Your task to perform on an android device: Is it going to rain today? Image 0: 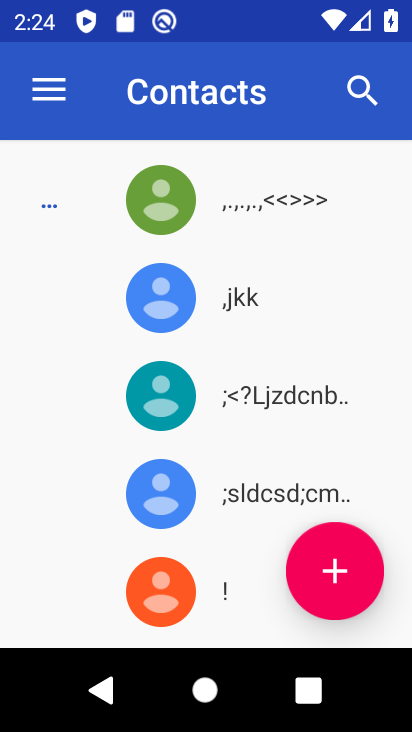
Step 0: click (202, 534)
Your task to perform on an android device: Is it going to rain today? Image 1: 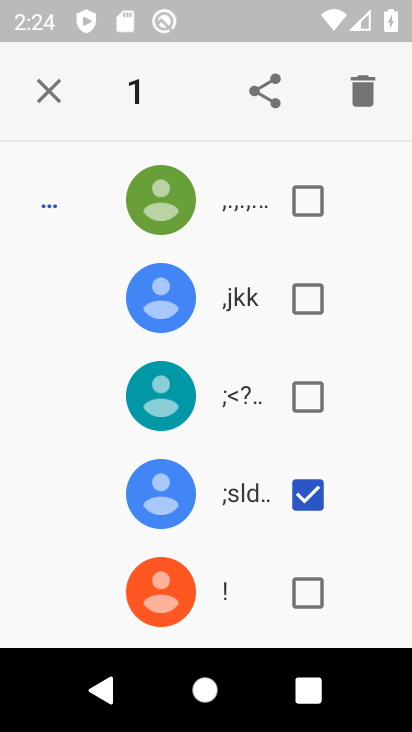
Step 1: press home button
Your task to perform on an android device: Is it going to rain today? Image 2: 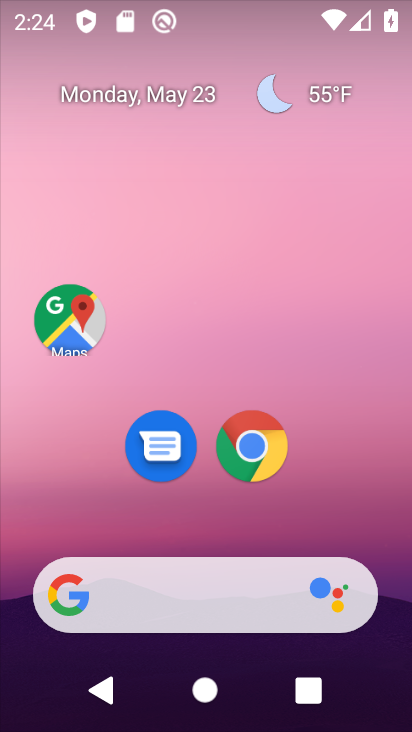
Step 2: drag from (214, 524) to (183, 151)
Your task to perform on an android device: Is it going to rain today? Image 3: 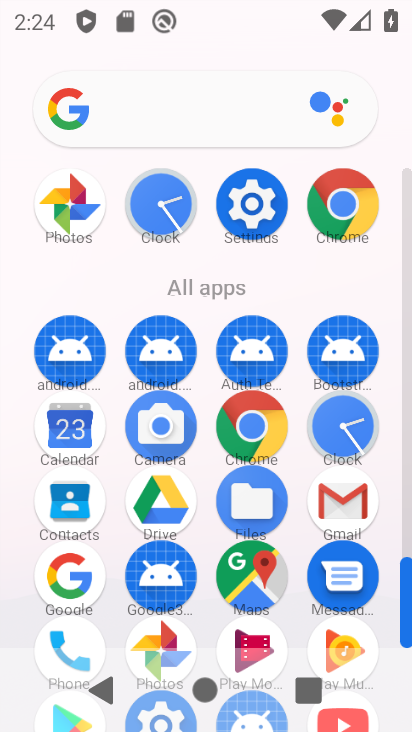
Step 3: click (72, 574)
Your task to perform on an android device: Is it going to rain today? Image 4: 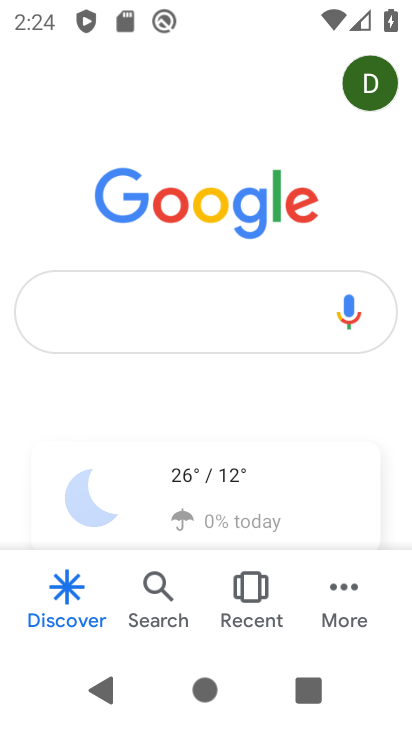
Step 4: click (179, 471)
Your task to perform on an android device: Is it going to rain today? Image 5: 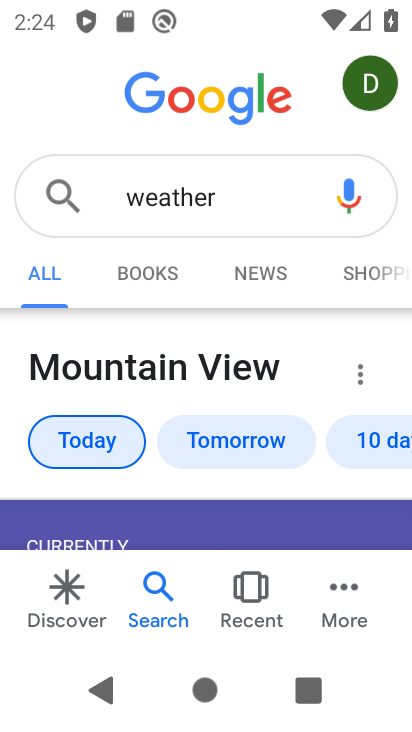
Step 5: task complete